Your task to perform on an android device: change your default location settings in chrome Image 0: 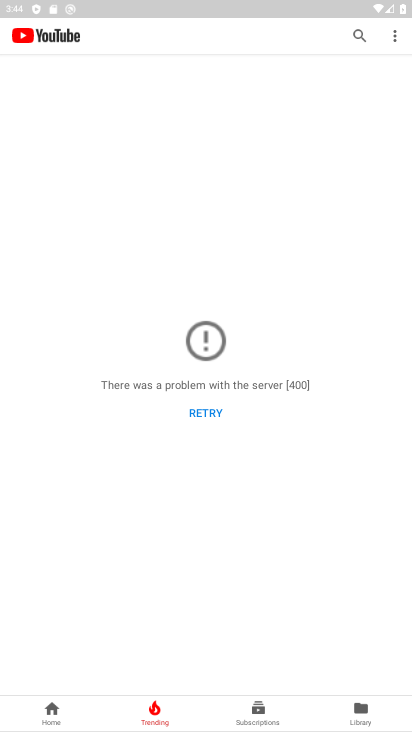
Step 0: press home button
Your task to perform on an android device: change your default location settings in chrome Image 1: 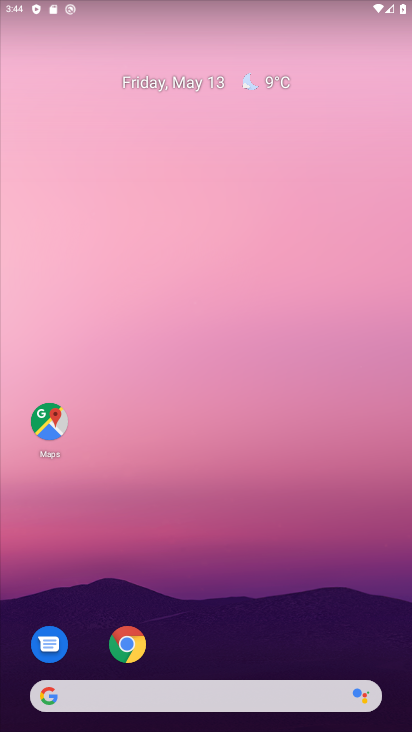
Step 1: click (120, 652)
Your task to perform on an android device: change your default location settings in chrome Image 2: 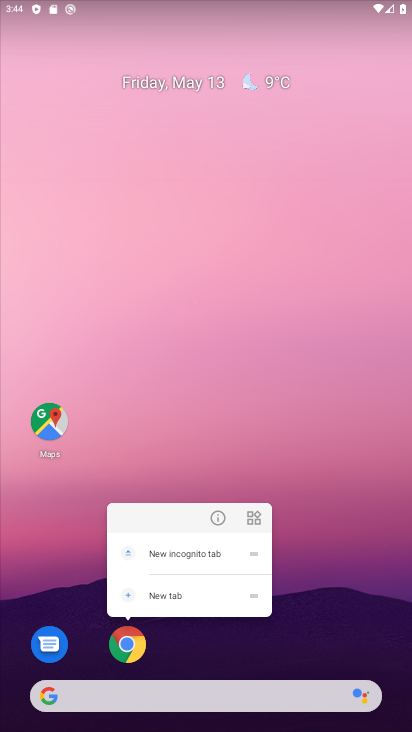
Step 2: click (134, 648)
Your task to perform on an android device: change your default location settings in chrome Image 3: 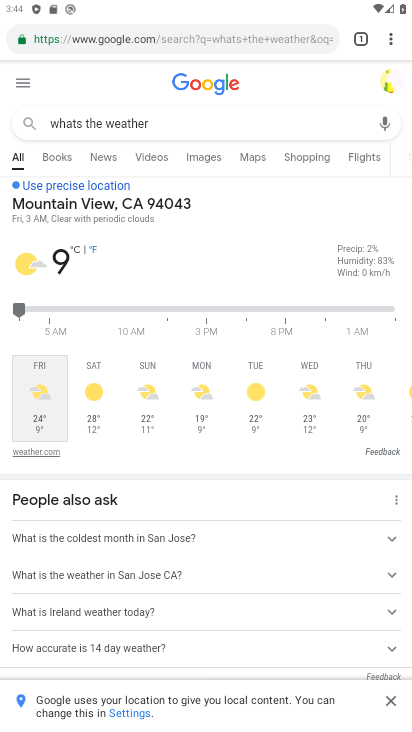
Step 3: drag from (387, 45) to (263, 433)
Your task to perform on an android device: change your default location settings in chrome Image 4: 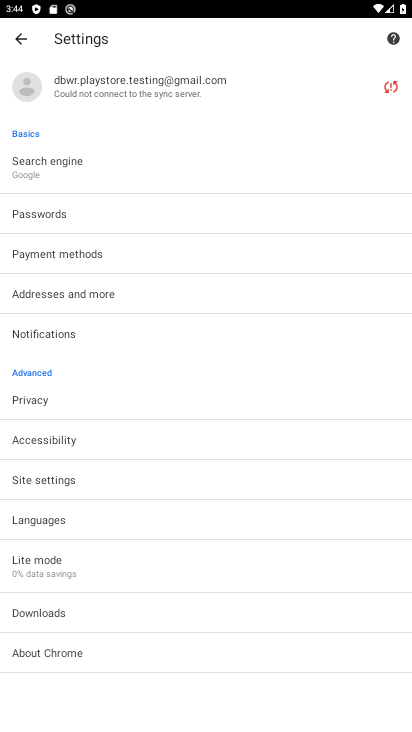
Step 4: click (99, 168)
Your task to perform on an android device: change your default location settings in chrome Image 5: 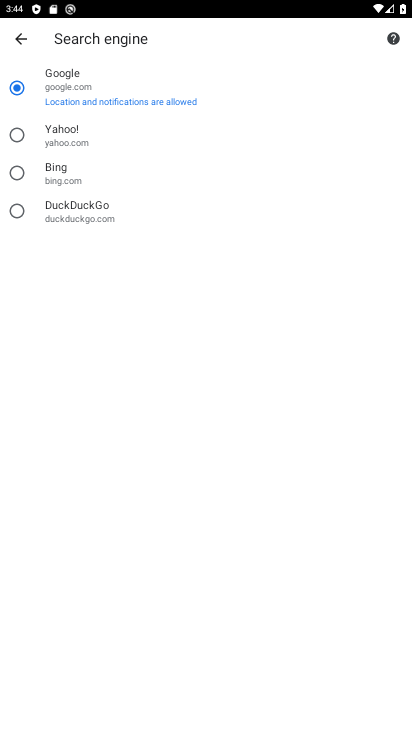
Step 5: click (80, 176)
Your task to perform on an android device: change your default location settings in chrome Image 6: 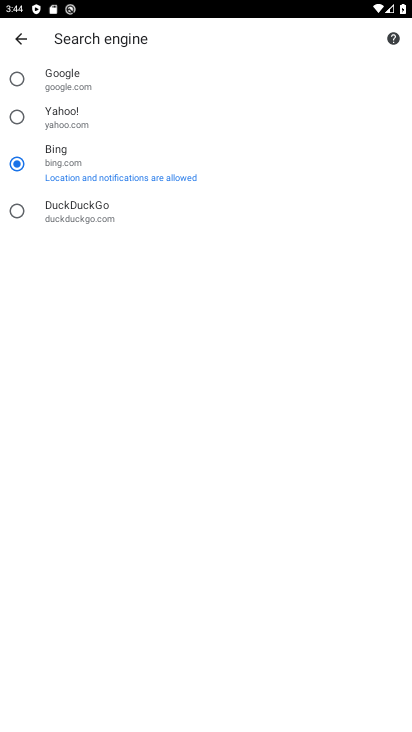
Step 6: task complete